Your task to perform on an android device: open app "Venmo" Image 0: 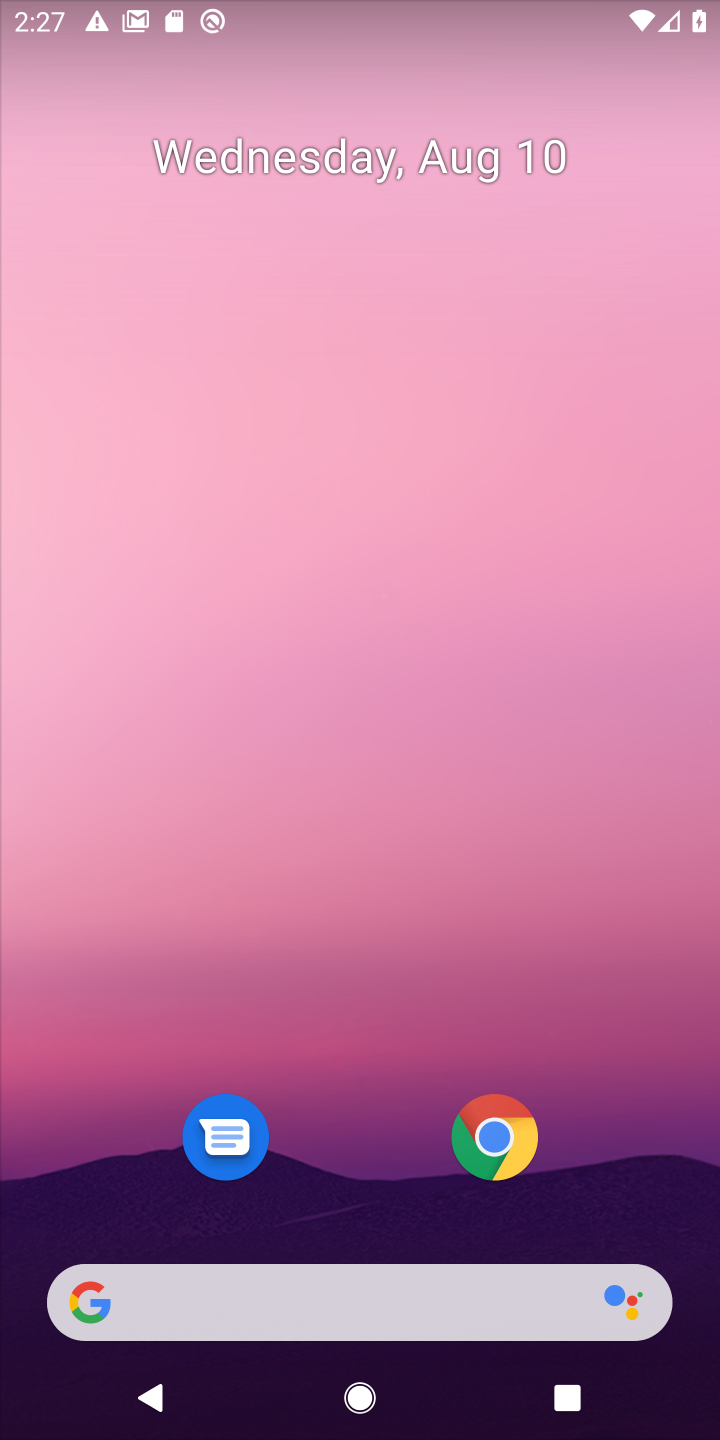
Step 0: drag from (322, 788) to (333, 22)
Your task to perform on an android device: open app "Venmo" Image 1: 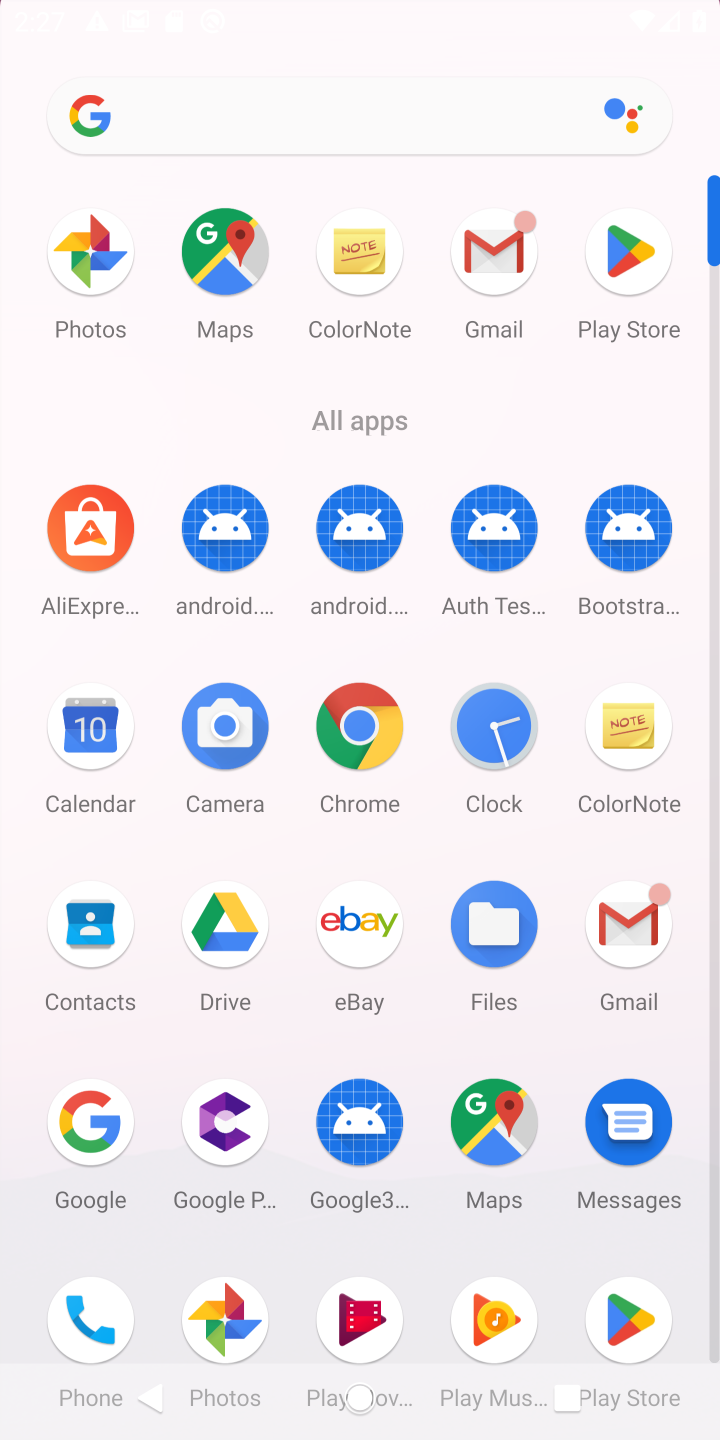
Step 1: drag from (422, 779) to (451, 462)
Your task to perform on an android device: open app "Venmo" Image 2: 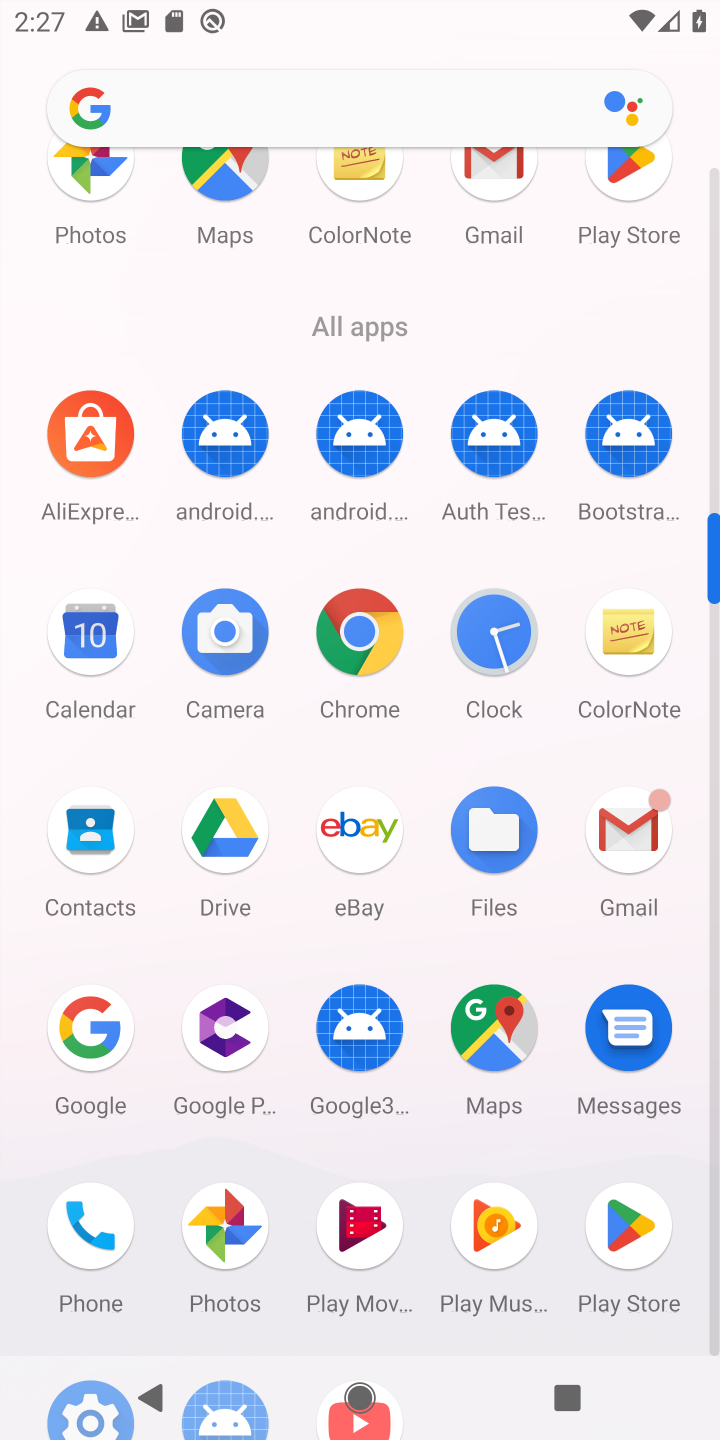
Step 2: click (628, 299)
Your task to perform on an android device: open app "Venmo" Image 3: 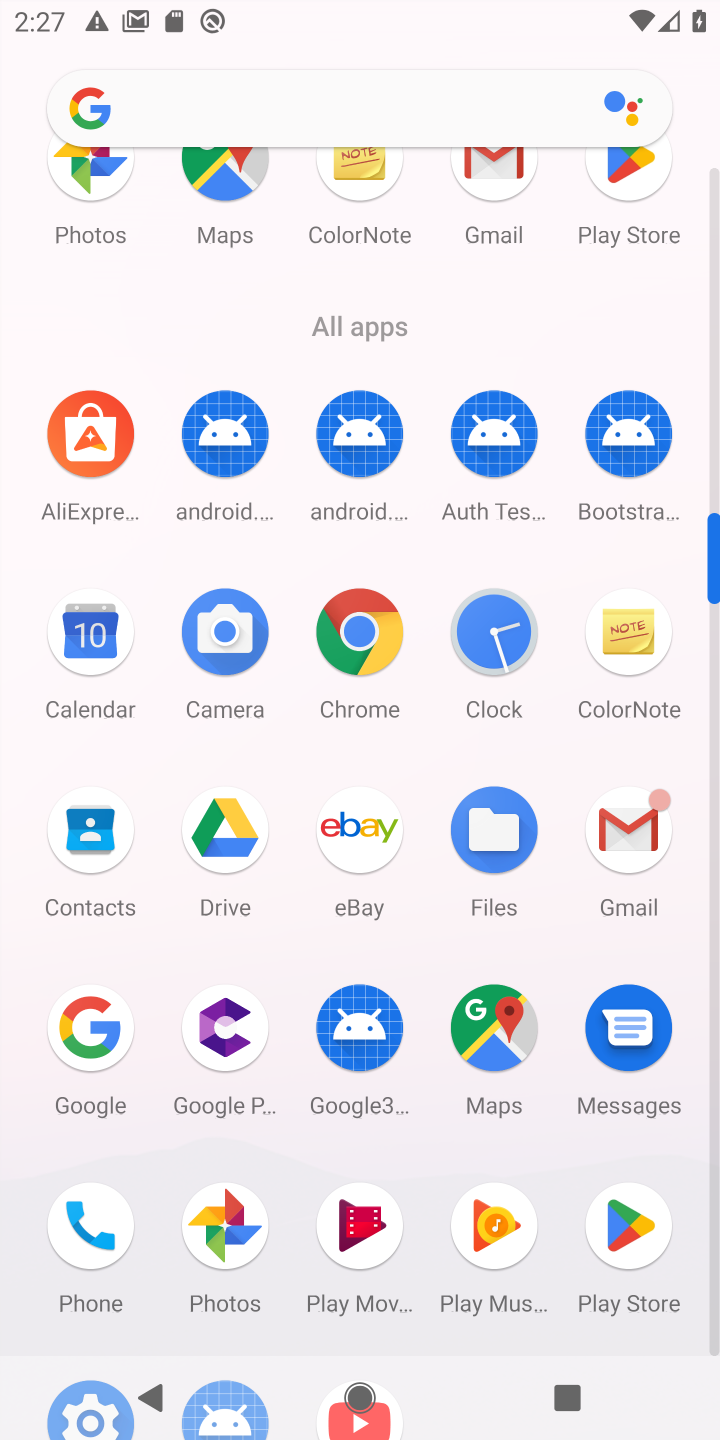
Step 3: click (637, 175)
Your task to perform on an android device: open app "Venmo" Image 4: 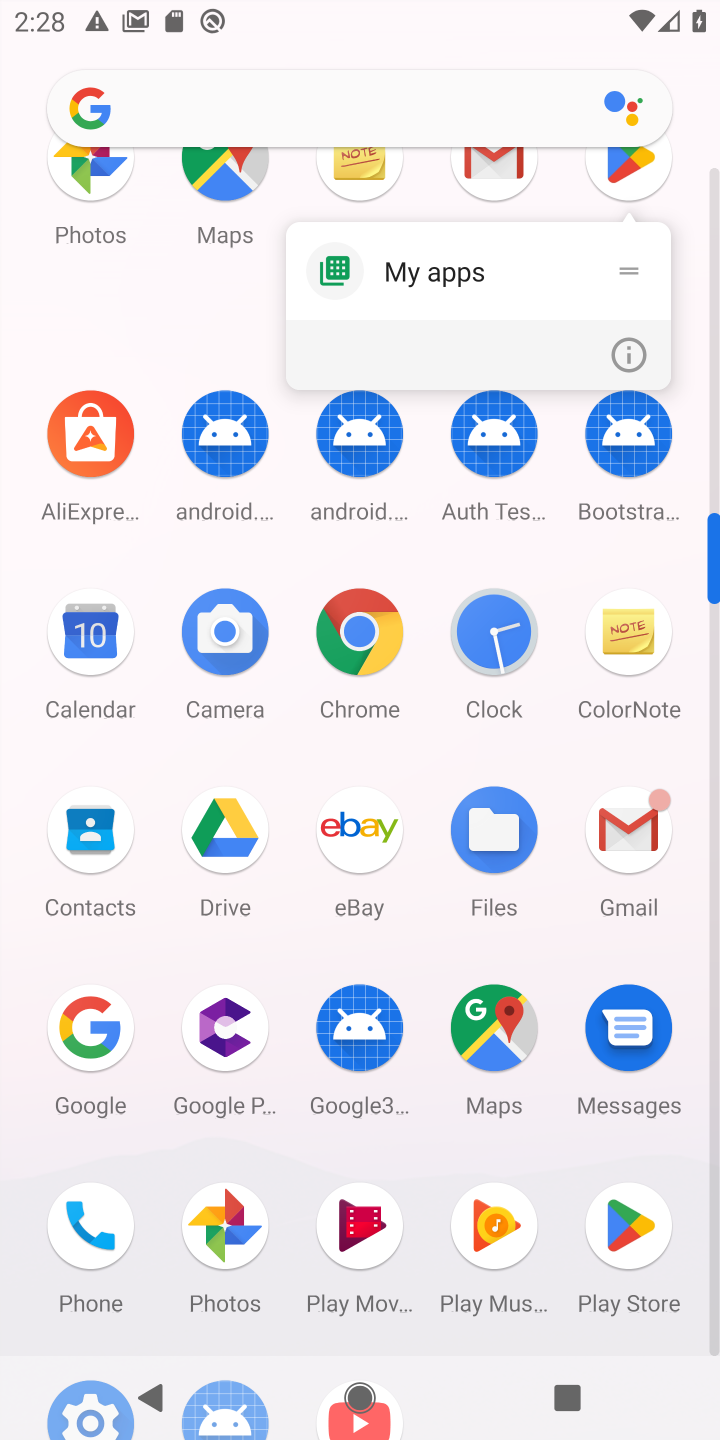
Step 4: click (623, 184)
Your task to perform on an android device: open app "Venmo" Image 5: 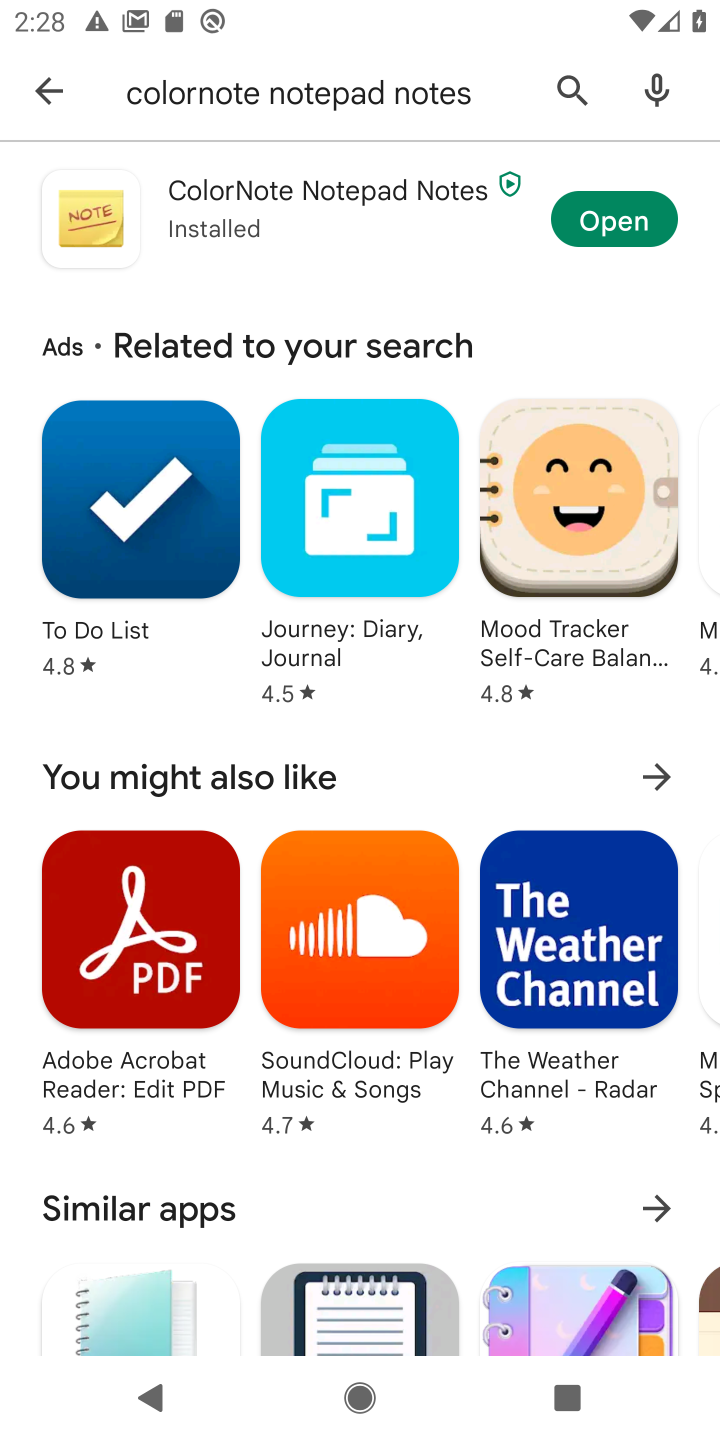
Step 5: click (331, 105)
Your task to perform on an android device: open app "Venmo" Image 6: 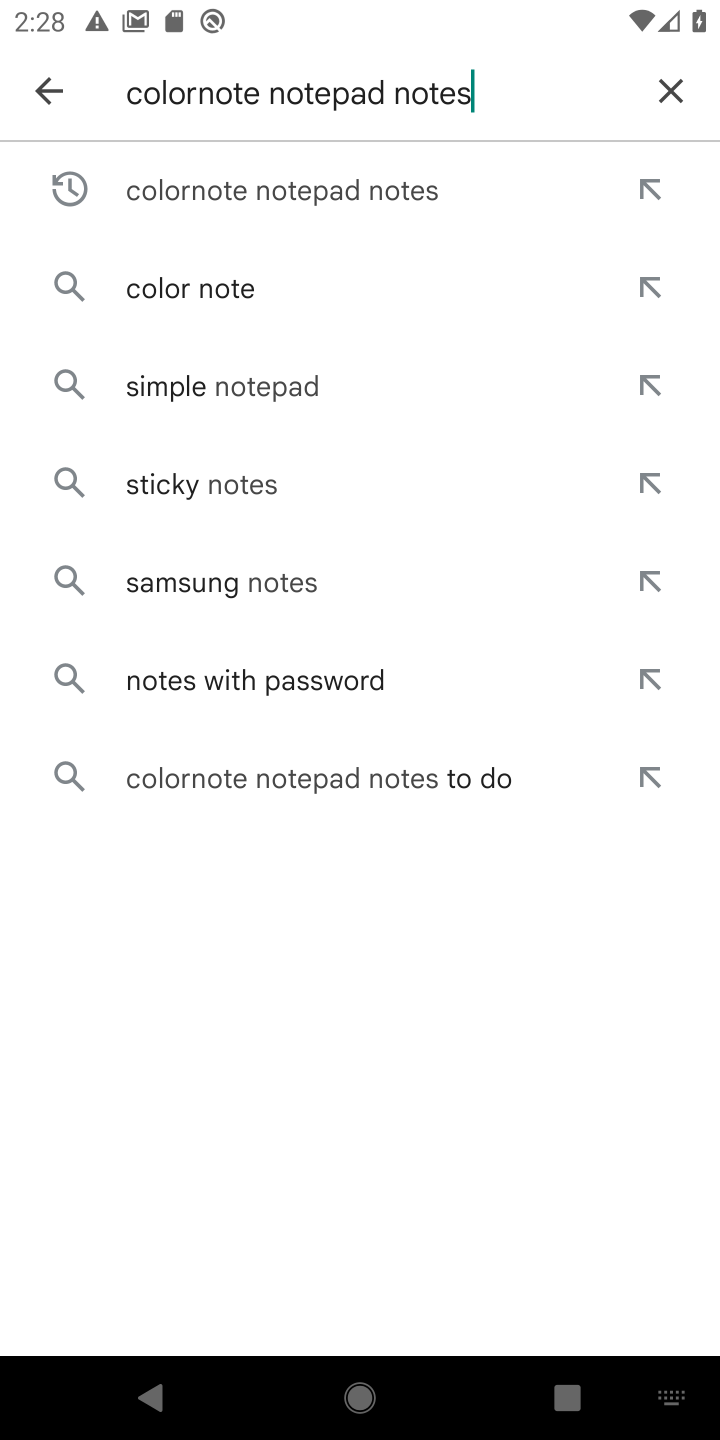
Step 6: click (670, 84)
Your task to perform on an android device: open app "Venmo" Image 7: 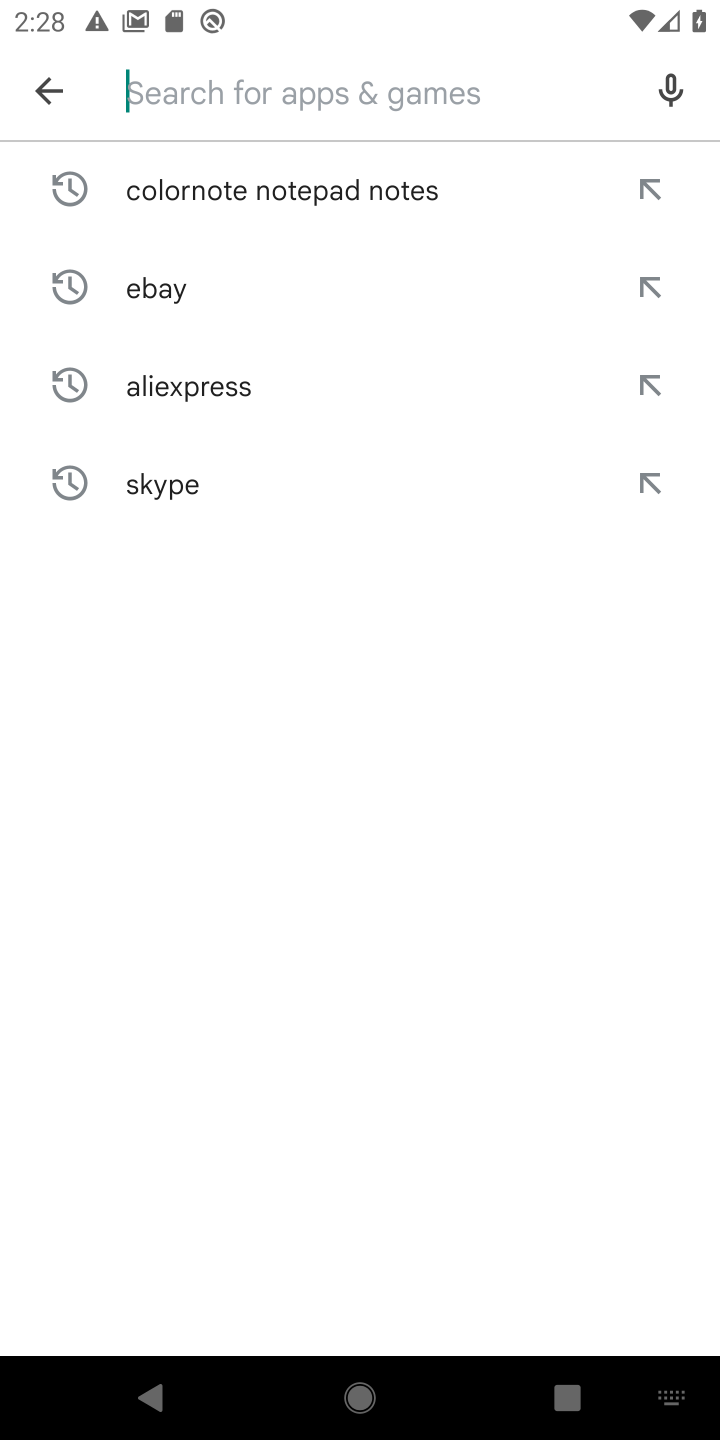
Step 7: type "venmo"
Your task to perform on an android device: open app "Venmo" Image 8: 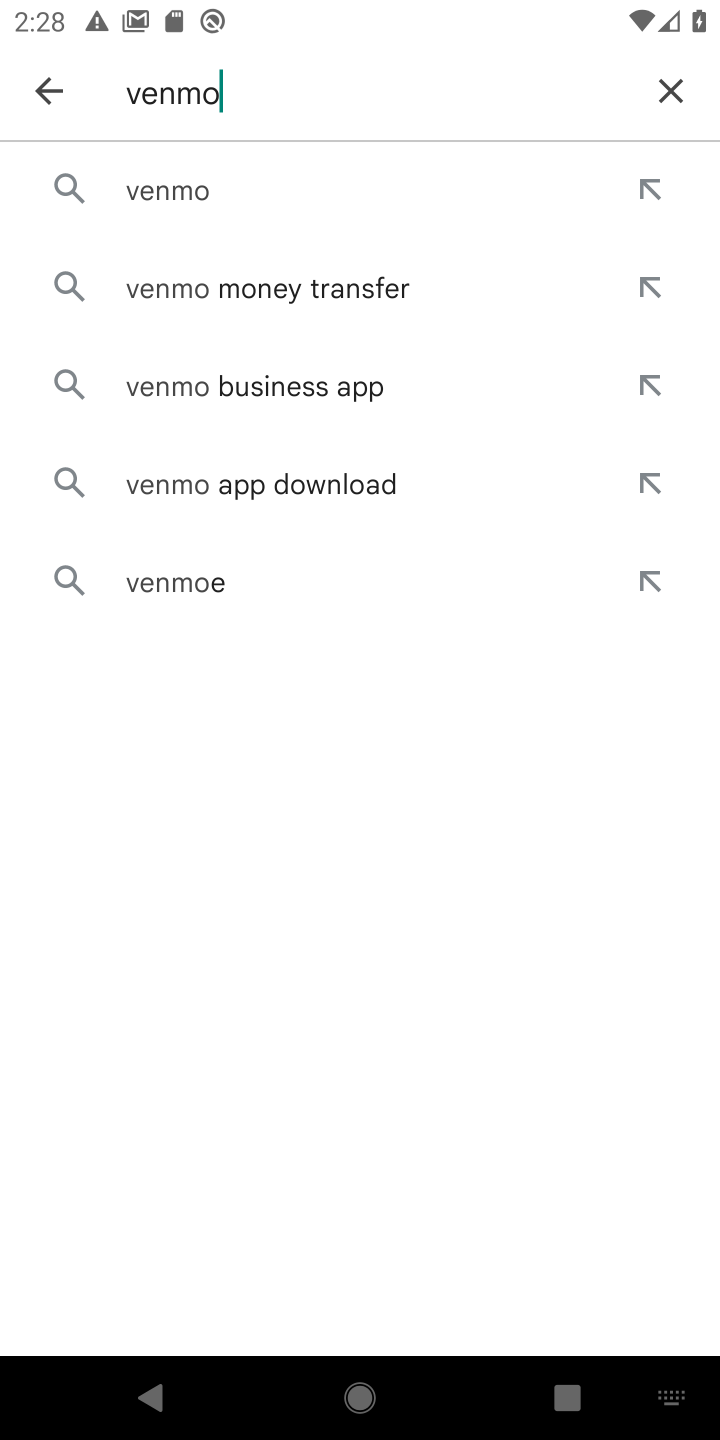
Step 8: click (183, 173)
Your task to perform on an android device: open app "Venmo" Image 9: 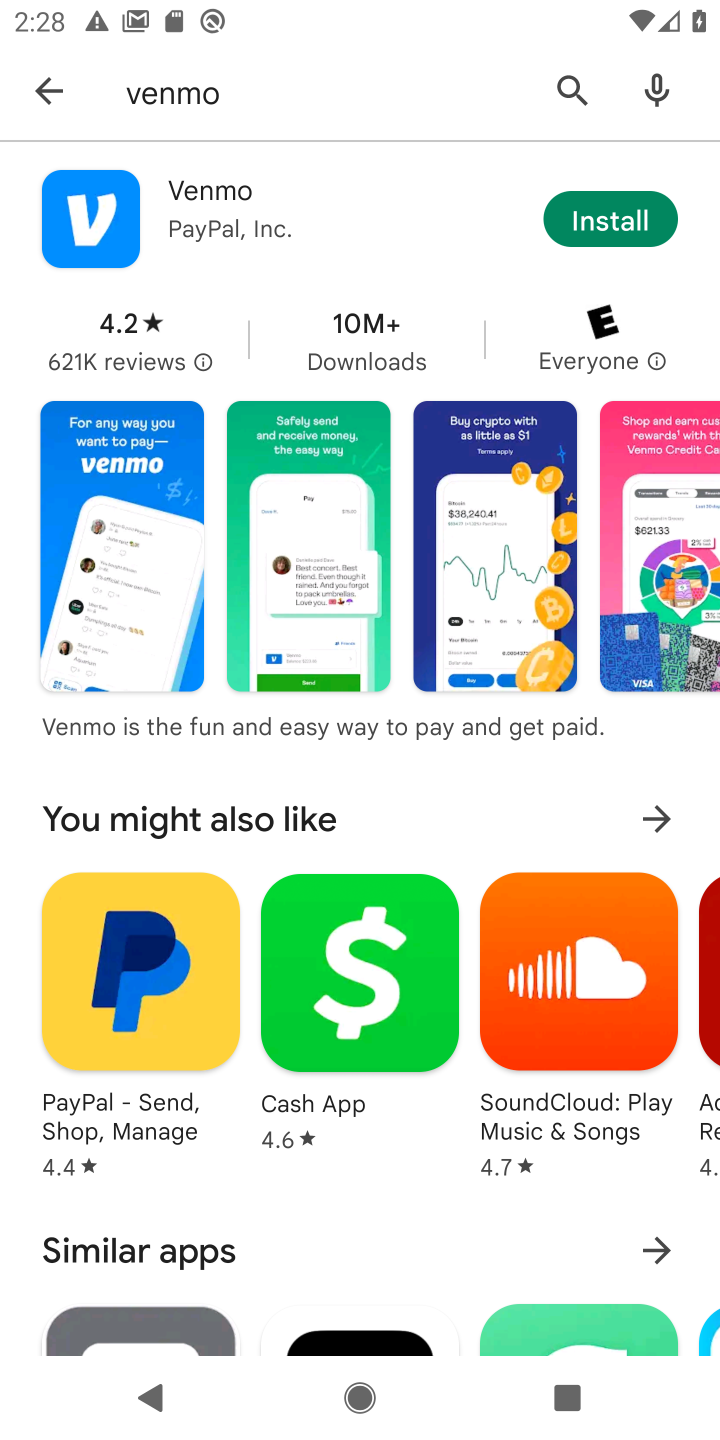
Step 9: task complete